Your task to perform on an android device: Open Yahoo.com Image 0: 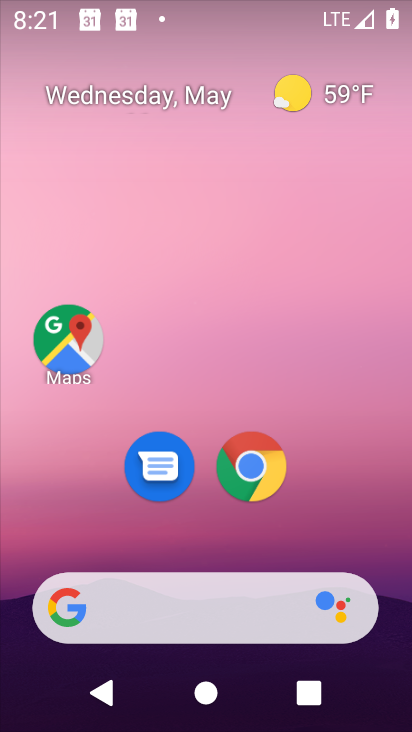
Step 0: drag from (338, 532) to (337, 310)
Your task to perform on an android device: Open Yahoo.com Image 1: 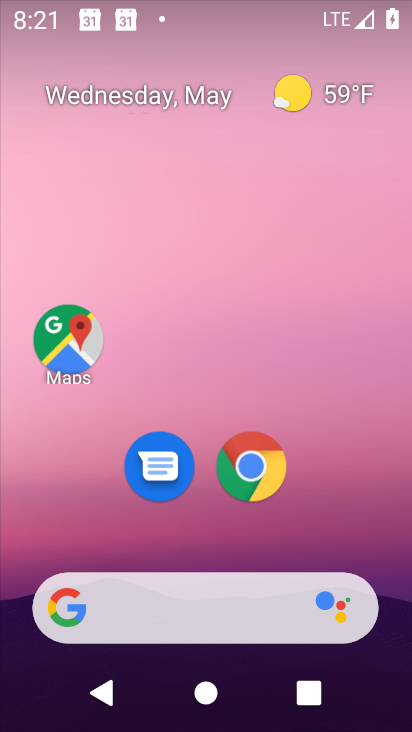
Step 1: drag from (342, 375) to (346, 262)
Your task to perform on an android device: Open Yahoo.com Image 2: 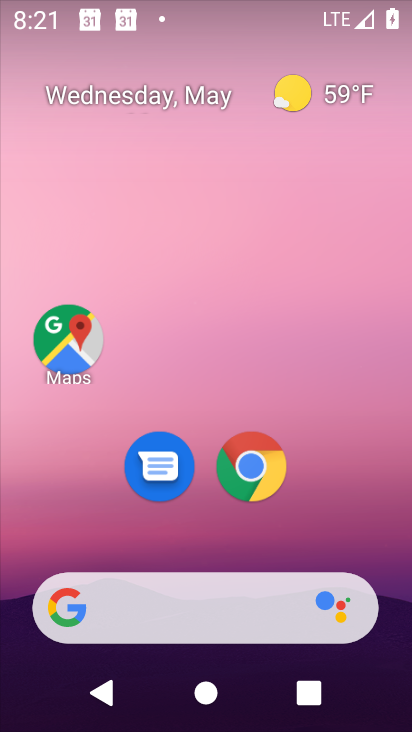
Step 2: drag from (313, 526) to (300, 256)
Your task to perform on an android device: Open Yahoo.com Image 3: 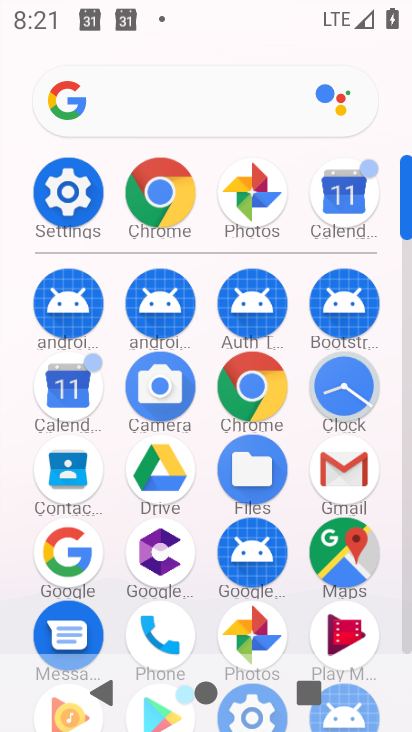
Step 3: click (137, 192)
Your task to perform on an android device: Open Yahoo.com Image 4: 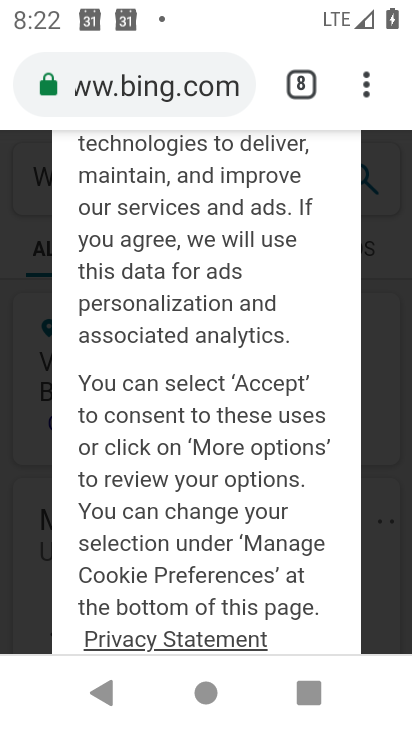
Step 4: task complete